Your task to perform on an android device: What's the weather? Image 0: 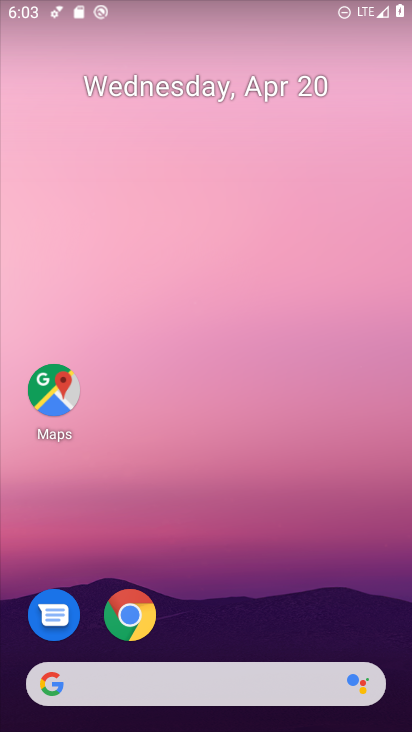
Step 0: click (243, 683)
Your task to perform on an android device: What's the weather? Image 1: 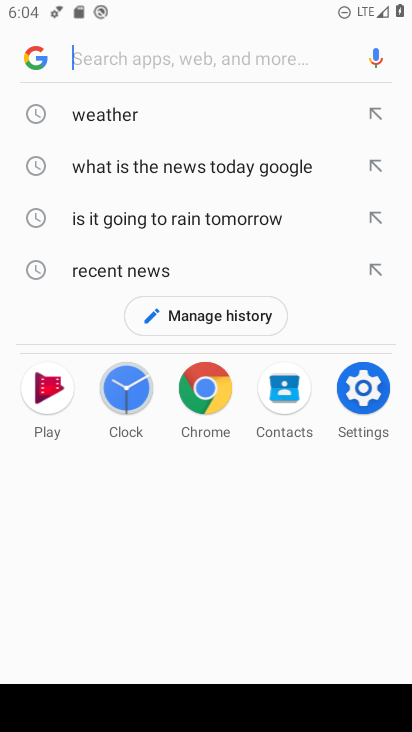
Step 1: click (160, 117)
Your task to perform on an android device: What's the weather? Image 2: 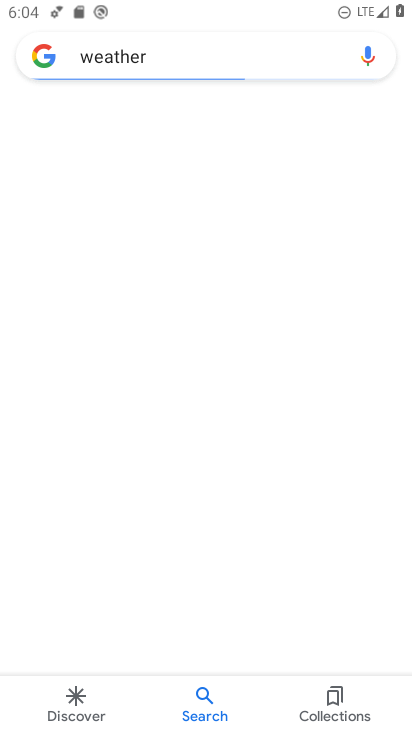
Step 2: click (160, 117)
Your task to perform on an android device: What's the weather? Image 3: 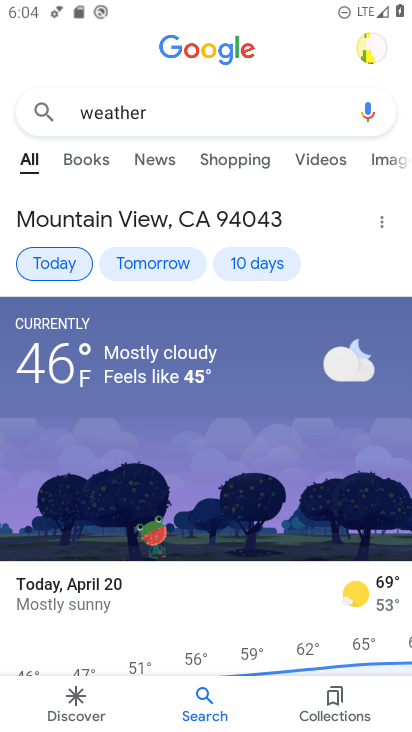
Step 3: task complete